Your task to perform on an android device: Do I have any events tomorrow? Image 0: 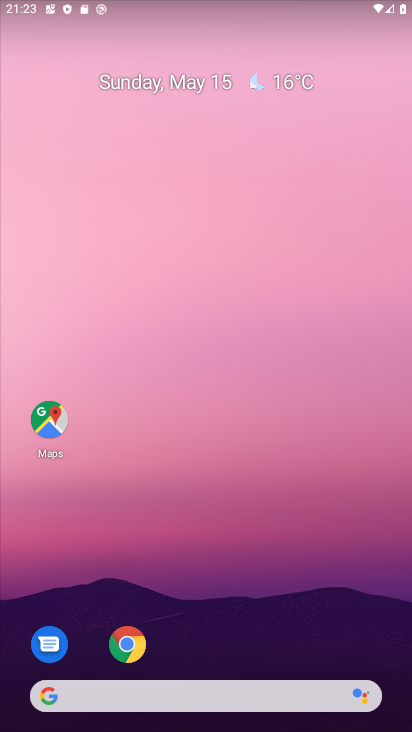
Step 0: drag from (216, 381) to (247, 76)
Your task to perform on an android device: Do I have any events tomorrow? Image 1: 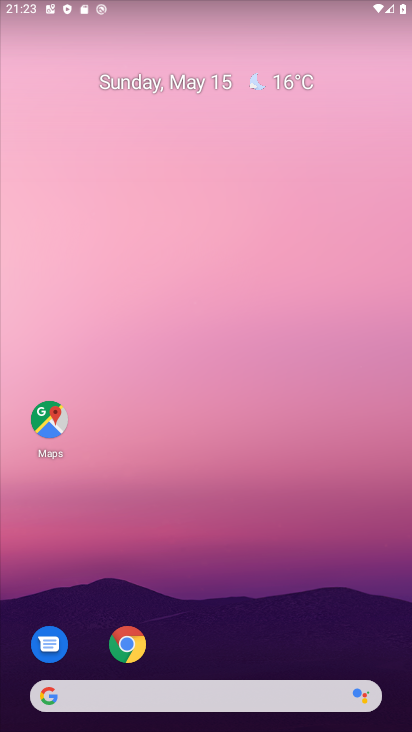
Step 1: drag from (190, 627) to (265, 165)
Your task to perform on an android device: Do I have any events tomorrow? Image 2: 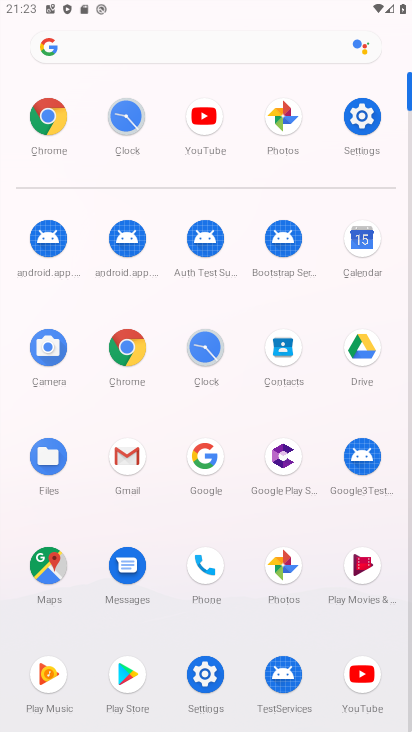
Step 2: click (357, 246)
Your task to perform on an android device: Do I have any events tomorrow? Image 3: 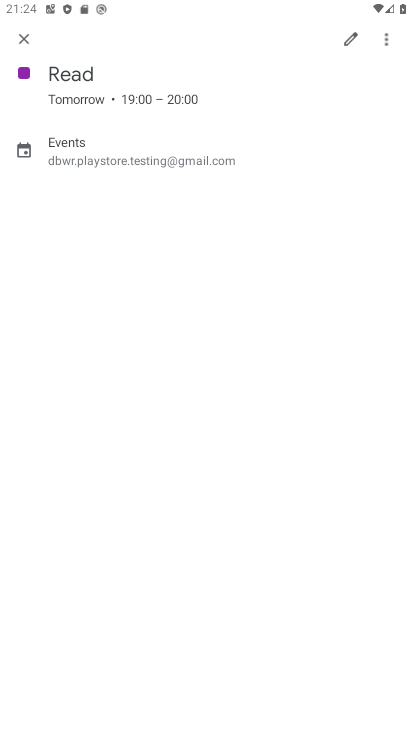
Step 3: click (26, 31)
Your task to perform on an android device: Do I have any events tomorrow? Image 4: 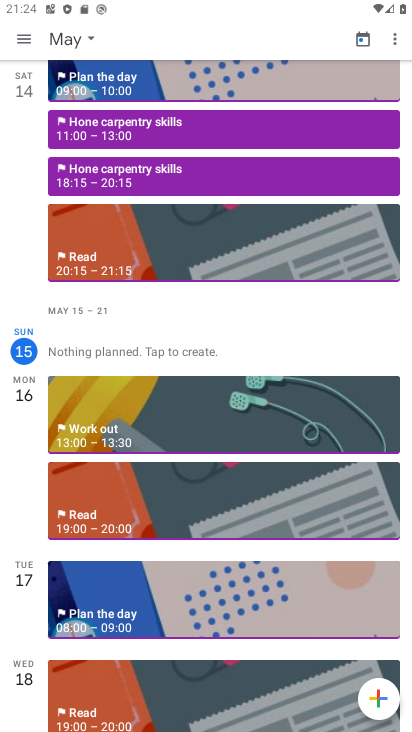
Step 4: drag from (135, 624) to (152, 473)
Your task to perform on an android device: Do I have any events tomorrow? Image 5: 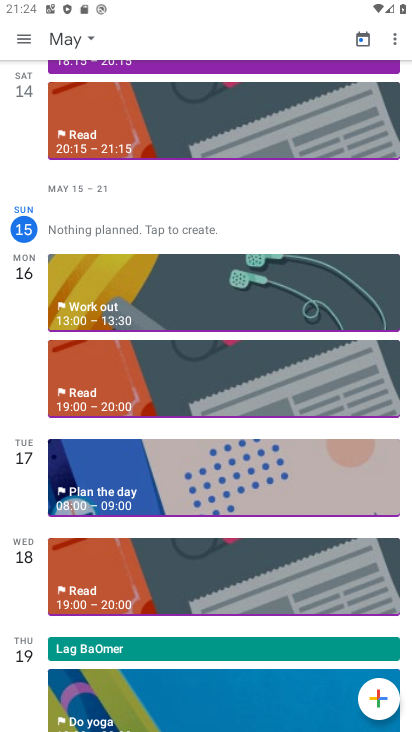
Step 5: click (152, 473)
Your task to perform on an android device: Do I have any events tomorrow? Image 6: 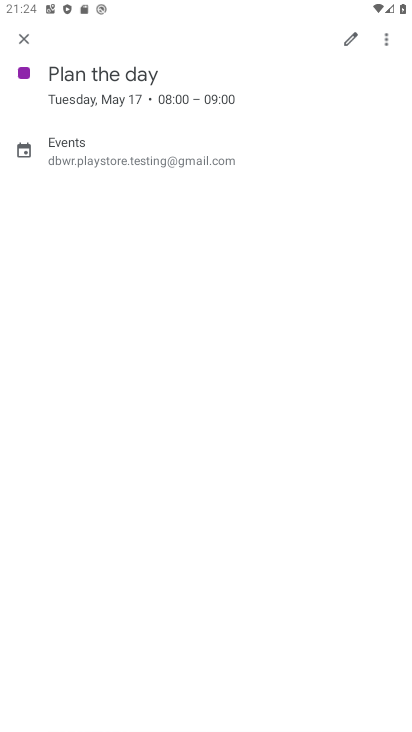
Step 6: task complete